Your task to perform on an android device: allow notifications from all sites in the chrome app Image 0: 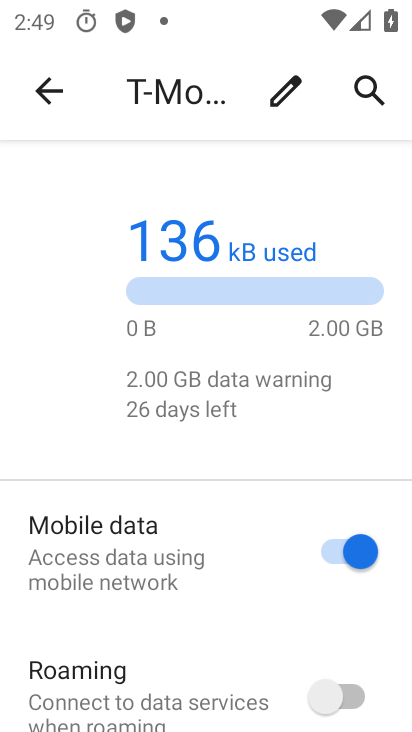
Step 0: press home button
Your task to perform on an android device: allow notifications from all sites in the chrome app Image 1: 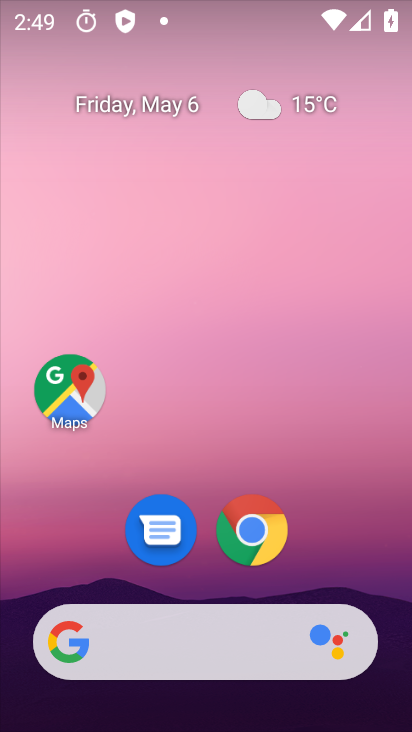
Step 1: drag from (365, 504) to (398, 95)
Your task to perform on an android device: allow notifications from all sites in the chrome app Image 2: 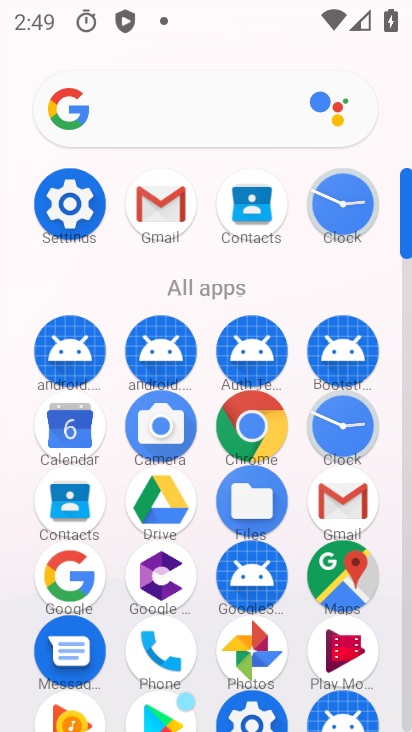
Step 2: click (247, 446)
Your task to perform on an android device: allow notifications from all sites in the chrome app Image 3: 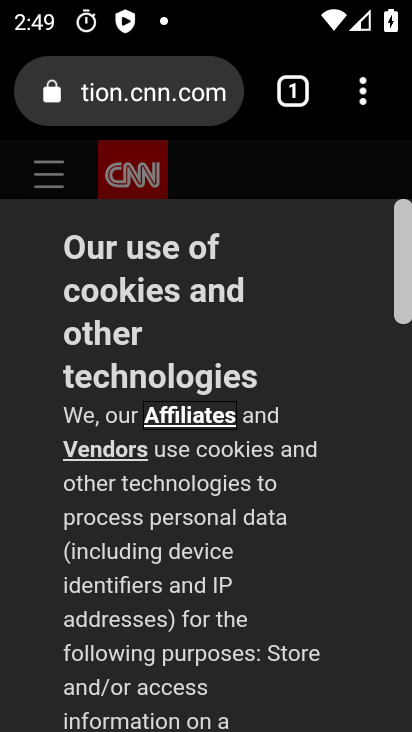
Step 3: drag from (350, 86) to (103, 562)
Your task to perform on an android device: allow notifications from all sites in the chrome app Image 4: 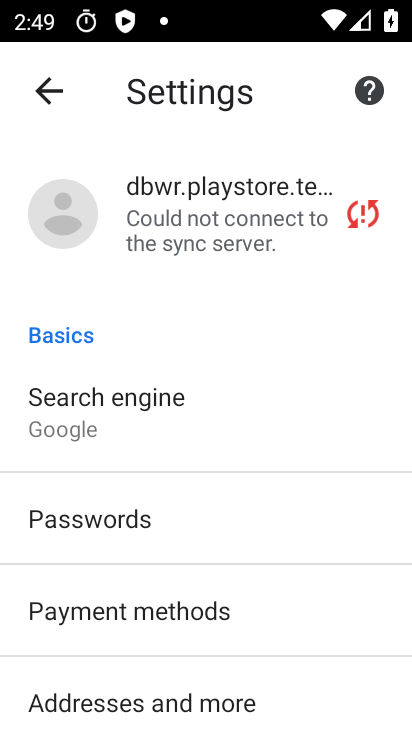
Step 4: drag from (229, 566) to (255, 194)
Your task to perform on an android device: allow notifications from all sites in the chrome app Image 5: 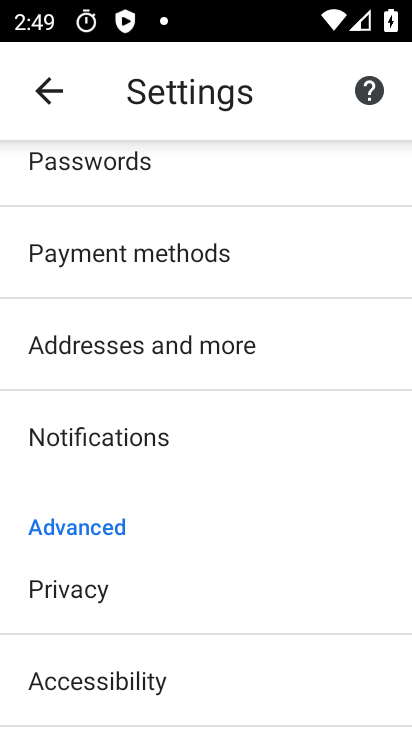
Step 5: drag from (35, 635) to (161, 260)
Your task to perform on an android device: allow notifications from all sites in the chrome app Image 6: 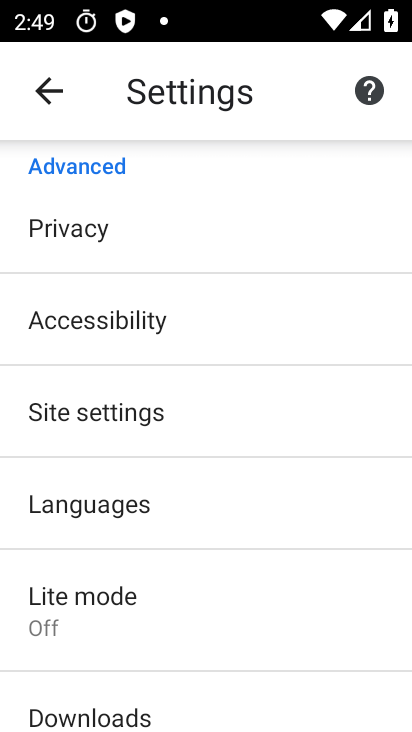
Step 6: click (146, 424)
Your task to perform on an android device: allow notifications from all sites in the chrome app Image 7: 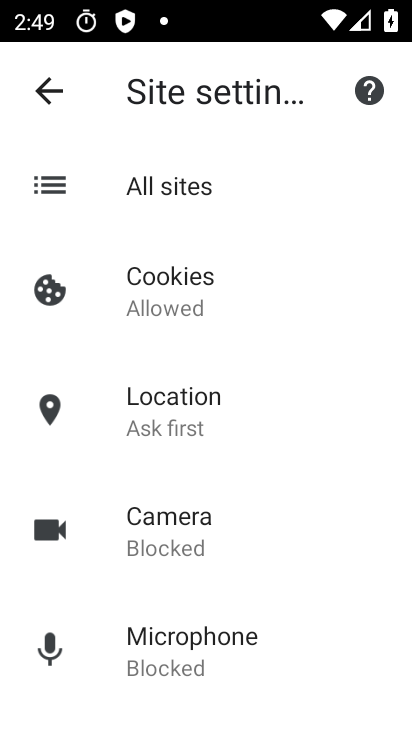
Step 7: drag from (154, 612) to (215, 254)
Your task to perform on an android device: allow notifications from all sites in the chrome app Image 8: 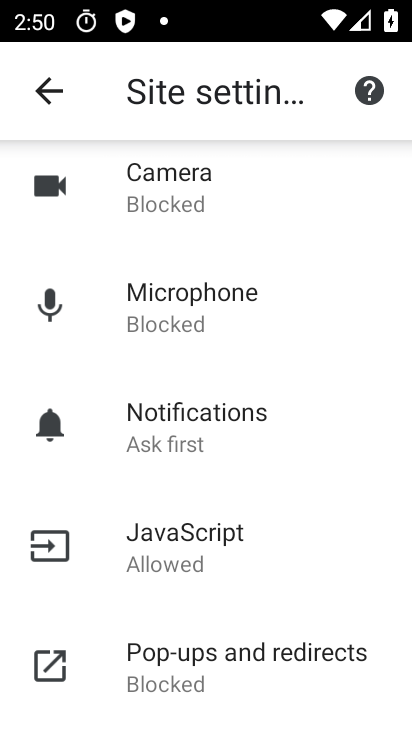
Step 8: click (169, 428)
Your task to perform on an android device: allow notifications from all sites in the chrome app Image 9: 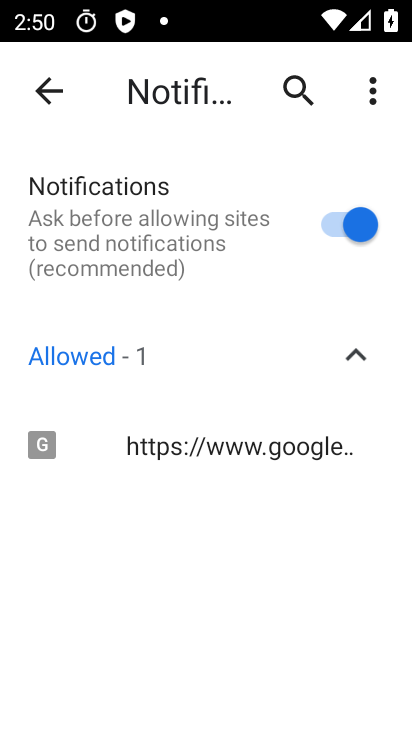
Step 9: task complete